Your task to perform on an android device: delete location history Image 0: 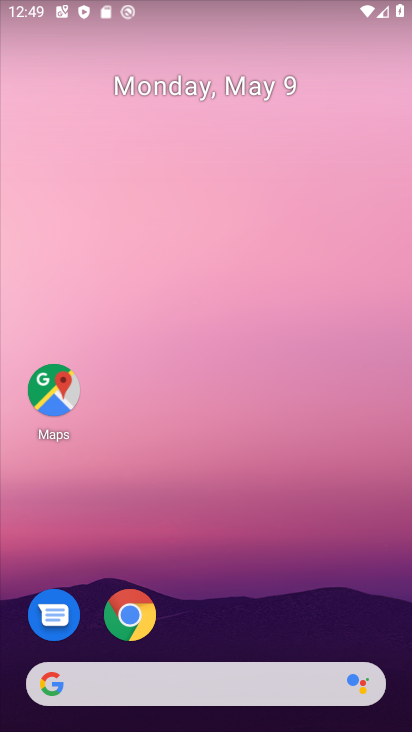
Step 0: click (53, 394)
Your task to perform on an android device: delete location history Image 1: 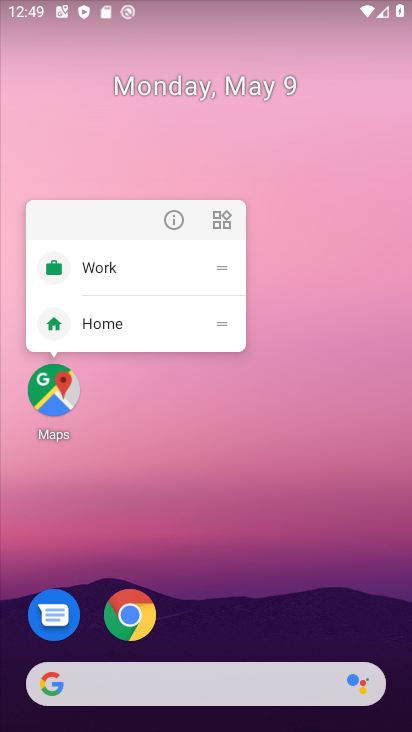
Step 1: click (52, 392)
Your task to perform on an android device: delete location history Image 2: 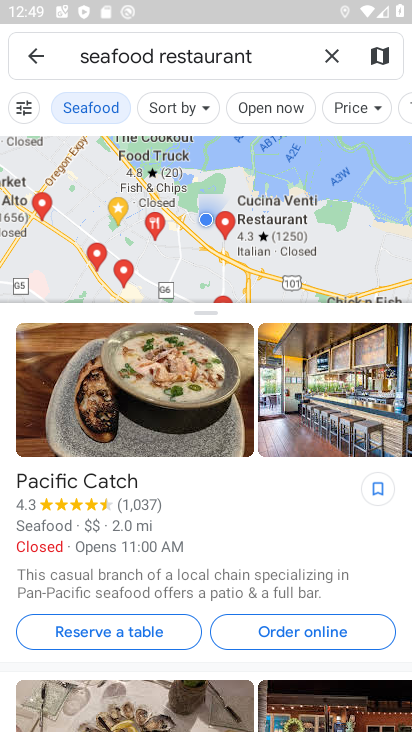
Step 2: click (329, 60)
Your task to perform on an android device: delete location history Image 3: 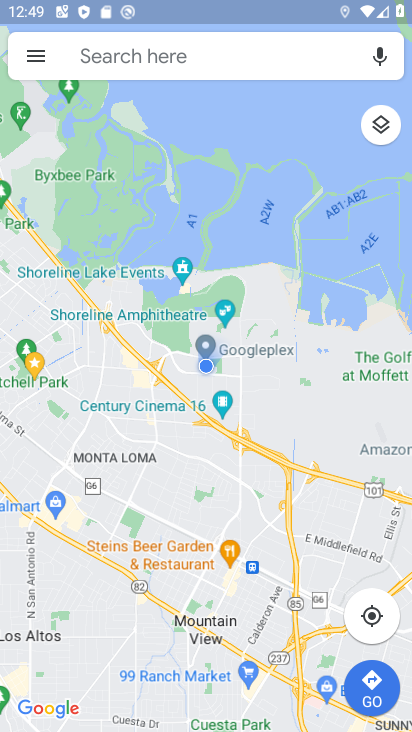
Step 3: click (34, 58)
Your task to perform on an android device: delete location history Image 4: 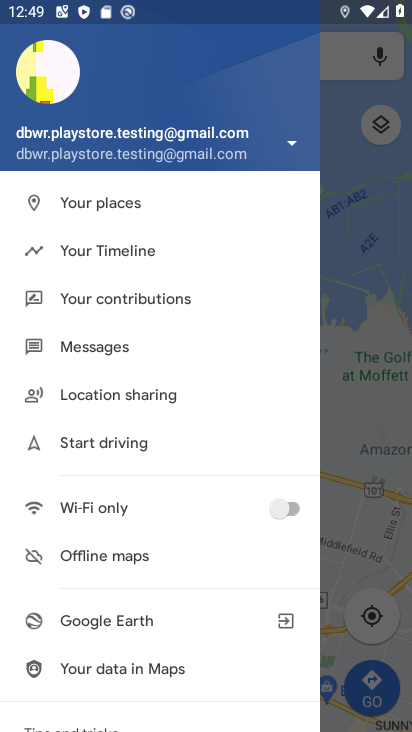
Step 4: drag from (85, 474) to (119, 402)
Your task to perform on an android device: delete location history Image 5: 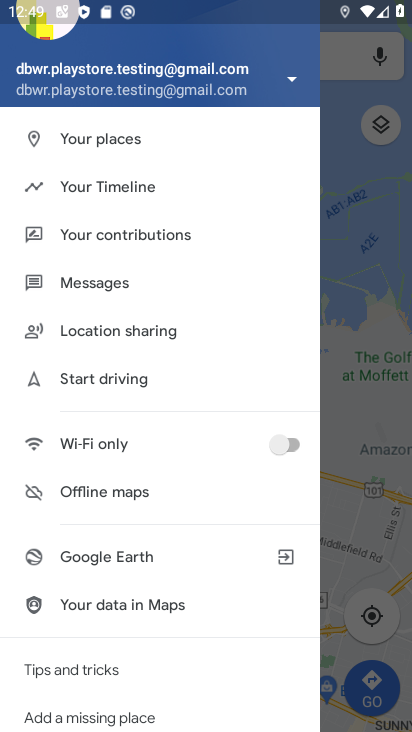
Step 5: drag from (128, 470) to (167, 369)
Your task to perform on an android device: delete location history Image 6: 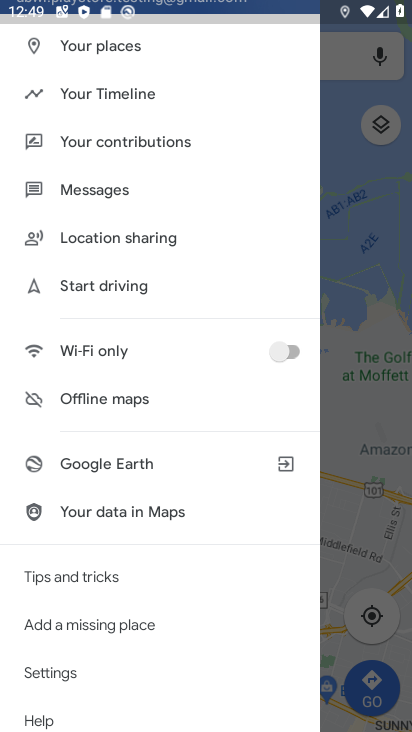
Step 6: drag from (115, 532) to (167, 445)
Your task to perform on an android device: delete location history Image 7: 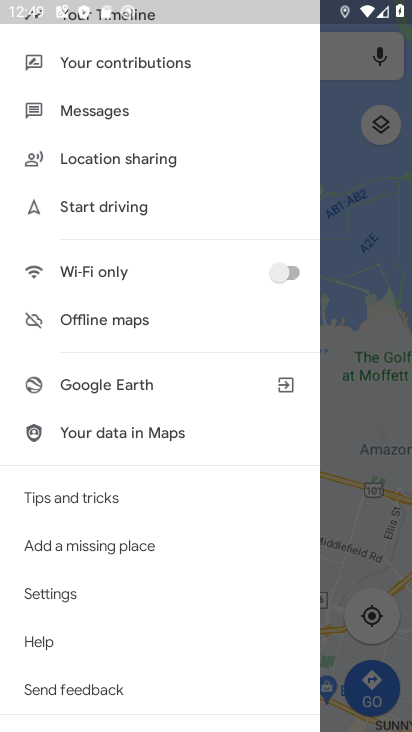
Step 7: click (49, 596)
Your task to perform on an android device: delete location history Image 8: 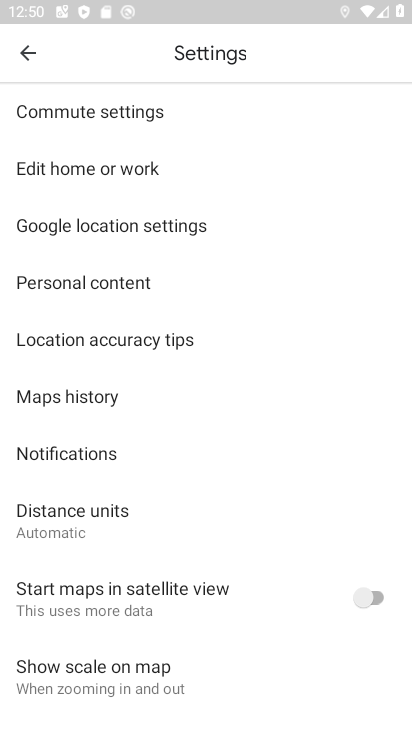
Step 8: click (130, 278)
Your task to perform on an android device: delete location history Image 9: 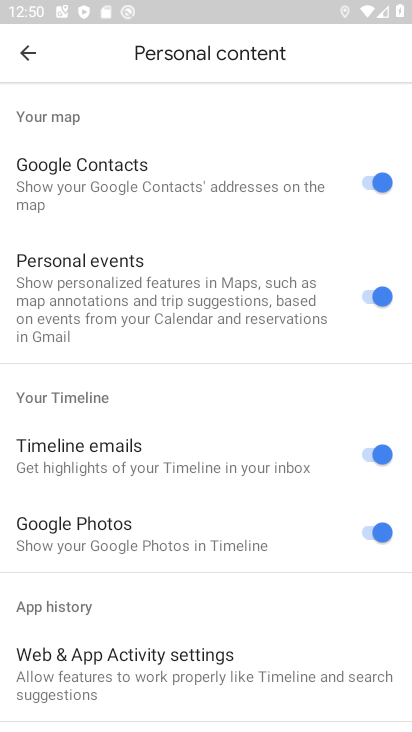
Step 9: drag from (109, 579) to (142, 486)
Your task to perform on an android device: delete location history Image 10: 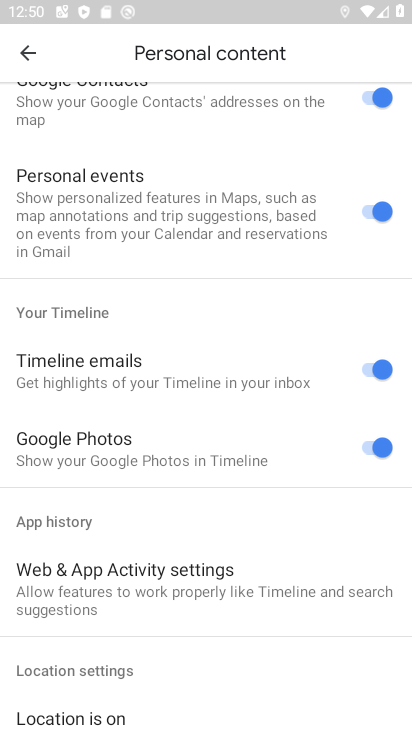
Step 10: drag from (111, 626) to (157, 498)
Your task to perform on an android device: delete location history Image 11: 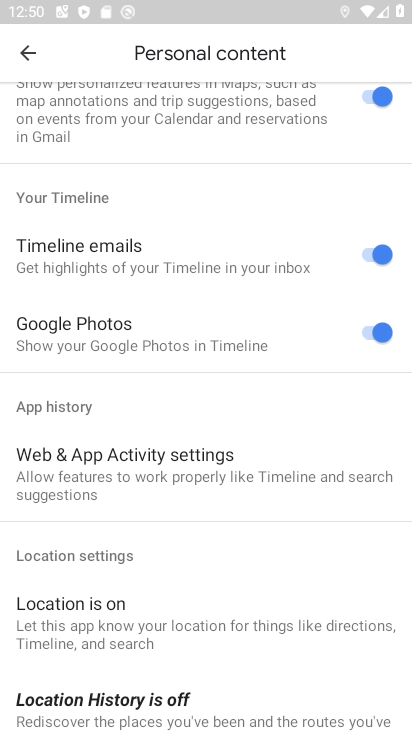
Step 11: drag from (139, 582) to (182, 468)
Your task to perform on an android device: delete location history Image 12: 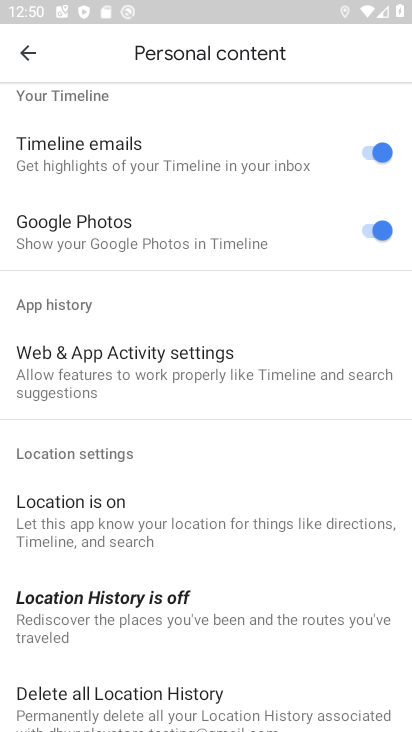
Step 12: drag from (113, 644) to (216, 506)
Your task to perform on an android device: delete location history Image 13: 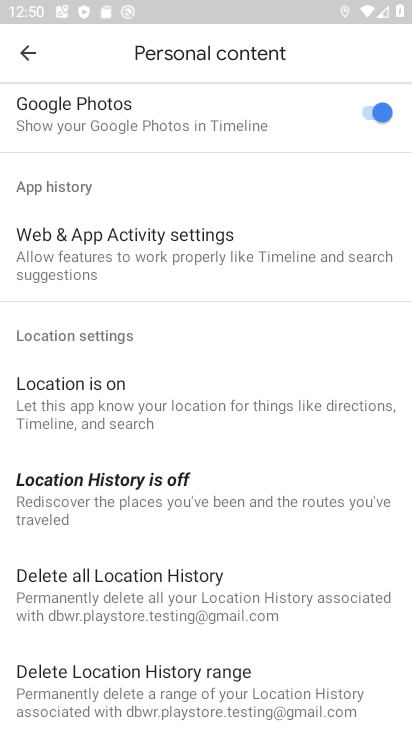
Step 13: drag from (165, 554) to (268, 435)
Your task to perform on an android device: delete location history Image 14: 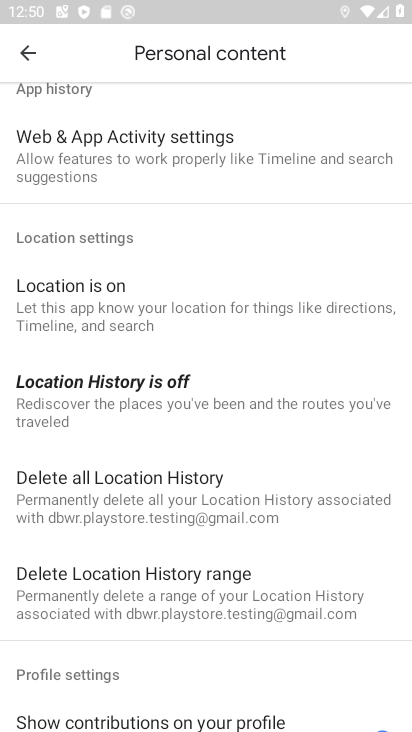
Step 14: click (180, 482)
Your task to perform on an android device: delete location history Image 15: 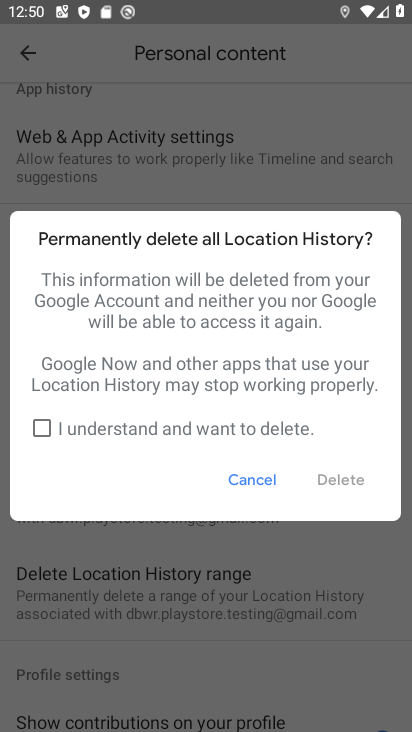
Step 15: click (41, 416)
Your task to perform on an android device: delete location history Image 16: 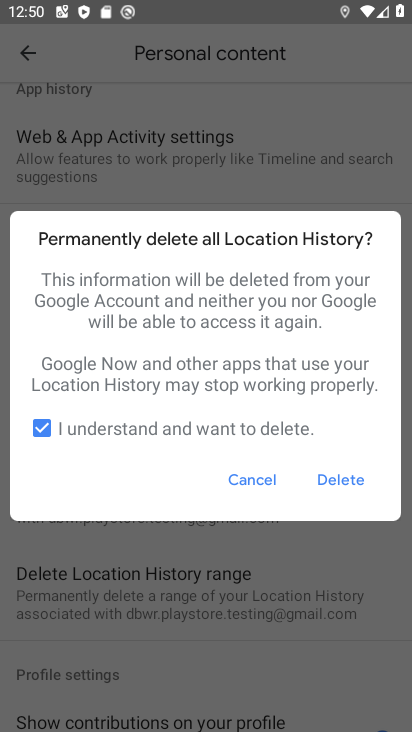
Step 16: click (341, 479)
Your task to perform on an android device: delete location history Image 17: 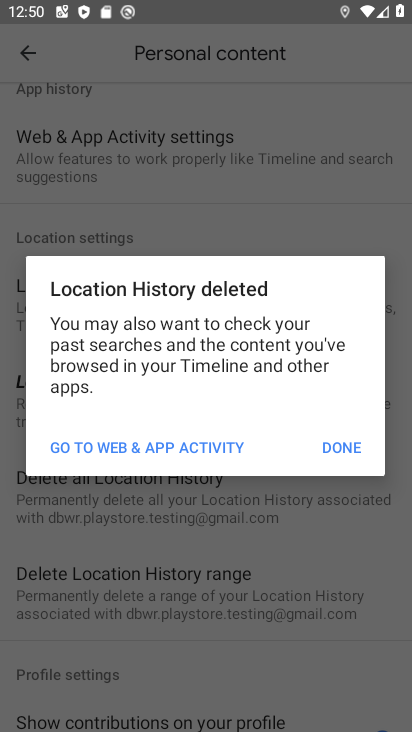
Step 17: click (326, 445)
Your task to perform on an android device: delete location history Image 18: 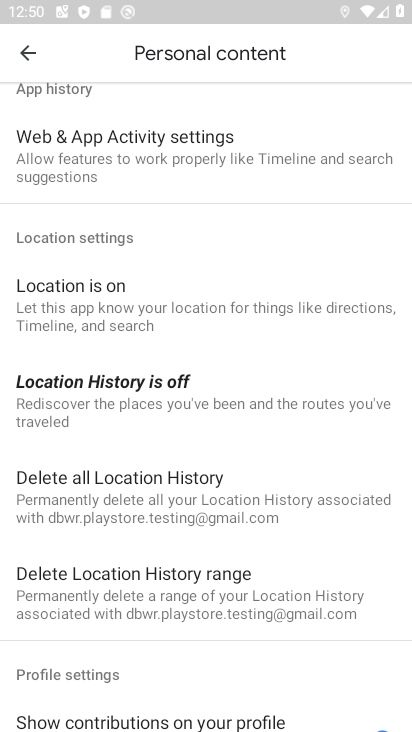
Step 18: task complete